Your task to perform on an android device: turn on bluetooth scan Image 0: 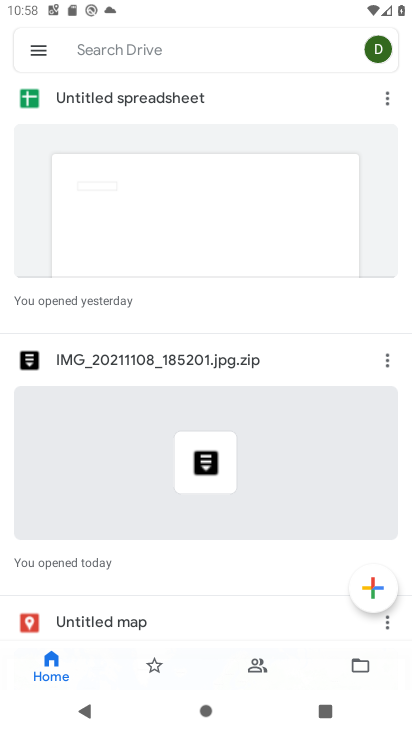
Step 0: press home button
Your task to perform on an android device: turn on bluetooth scan Image 1: 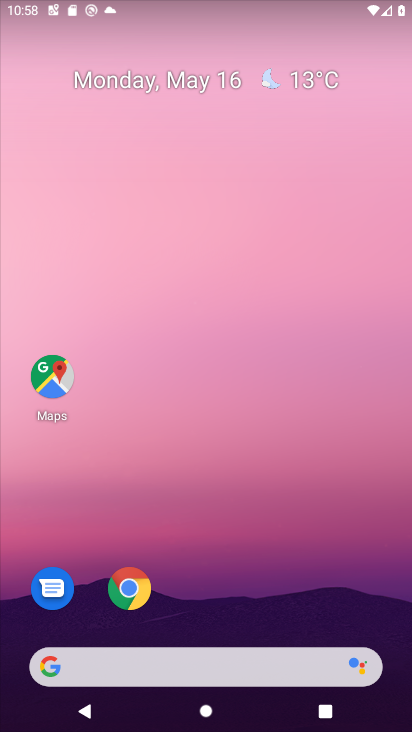
Step 1: drag from (206, 621) to (240, 71)
Your task to perform on an android device: turn on bluetooth scan Image 2: 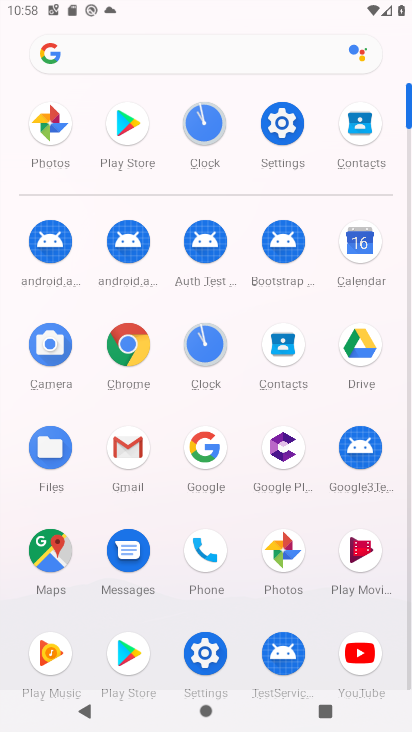
Step 2: click (279, 116)
Your task to perform on an android device: turn on bluetooth scan Image 3: 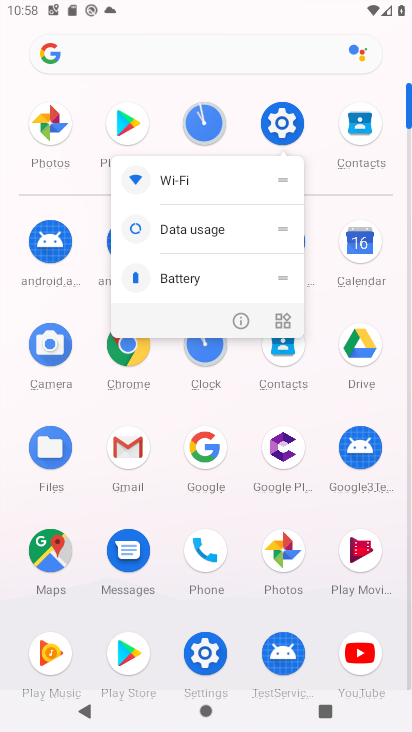
Step 3: click (279, 116)
Your task to perform on an android device: turn on bluetooth scan Image 4: 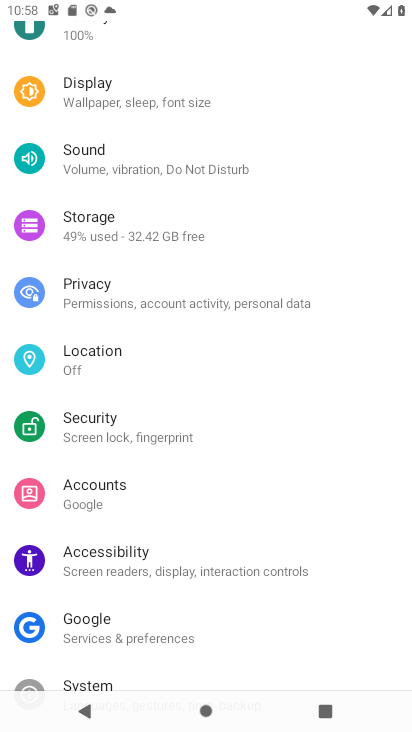
Step 4: click (128, 356)
Your task to perform on an android device: turn on bluetooth scan Image 5: 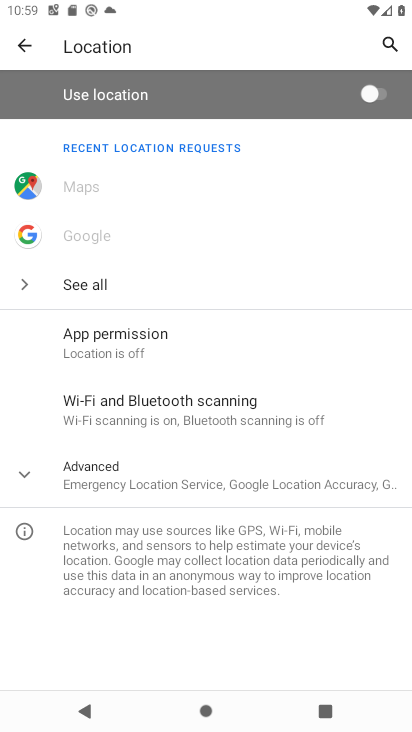
Step 5: click (274, 401)
Your task to perform on an android device: turn on bluetooth scan Image 6: 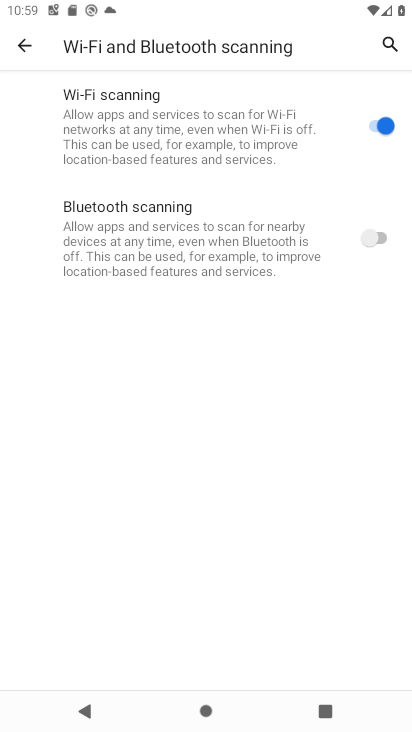
Step 6: click (375, 233)
Your task to perform on an android device: turn on bluetooth scan Image 7: 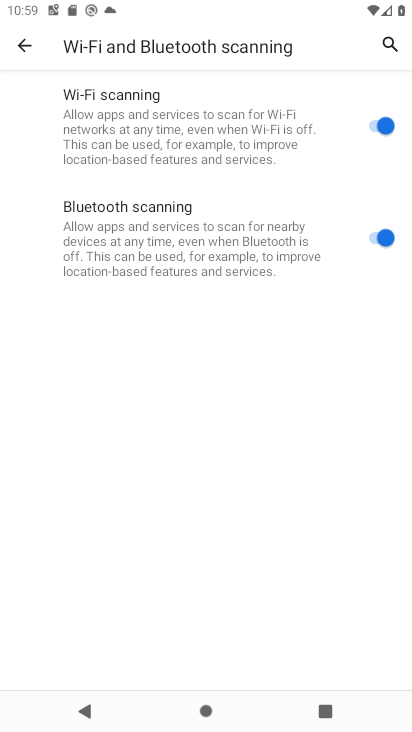
Step 7: task complete